Your task to perform on an android device: turn on the 12-hour format for clock Image 0: 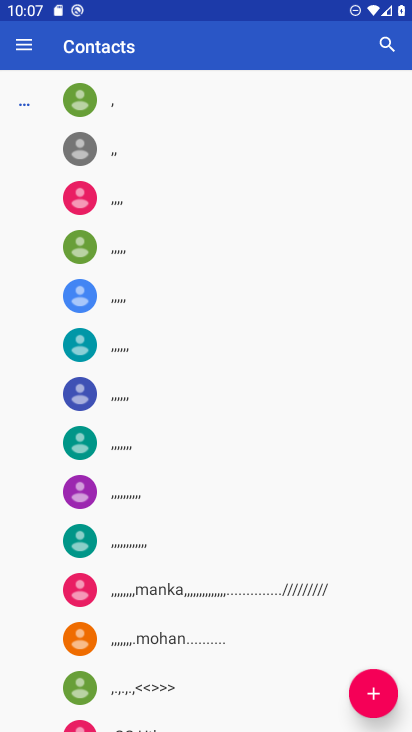
Step 0: press home button
Your task to perform on an android device: turn on the 12-hour format for clock Image 1: 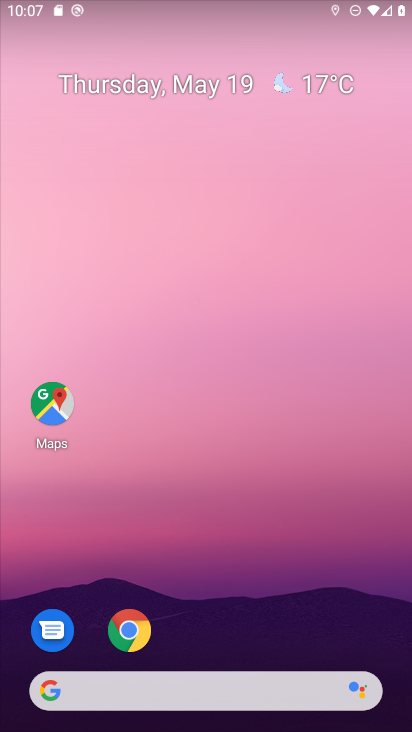
Step 1: drag from (302, 586) to (242, 212)
Your task to perform on an android device: turn on the 12-hour format for clock Image 2: 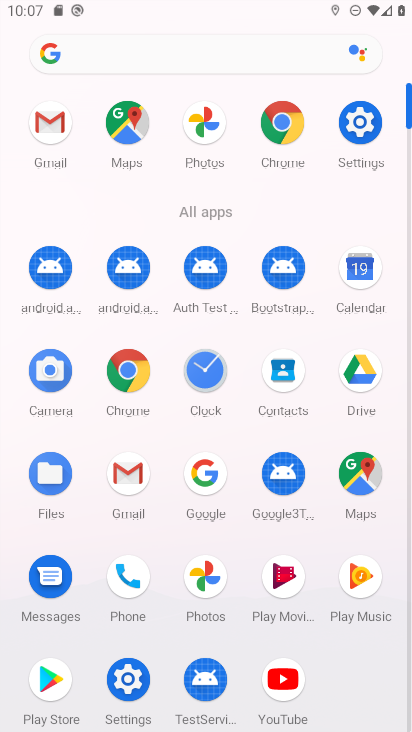
Step 2: click (199, 370)
Your task to perform on an android device: turn on the 12-hour format for clock Image 3: 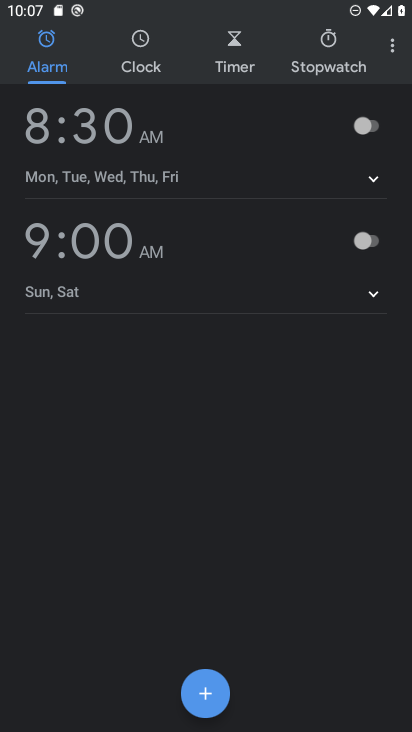
Step 3: click (394, 44)
Your task to perform on an android device: turn on the 12-hour format for clock Image 4: 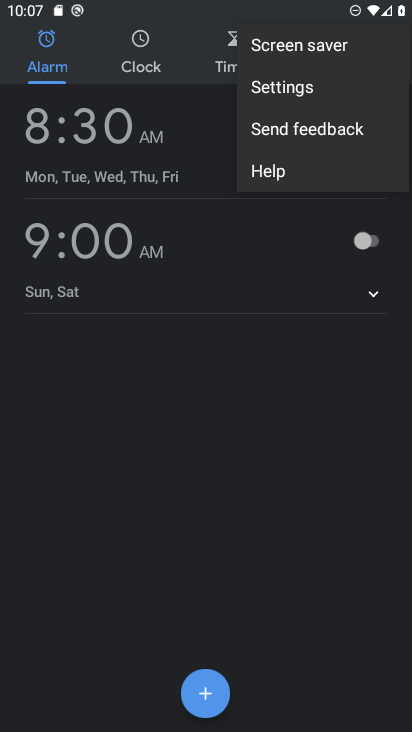
Step 4: click (286, 93)
Your task to perform on an android device: turn on the 12-hour format for clock Image 5: 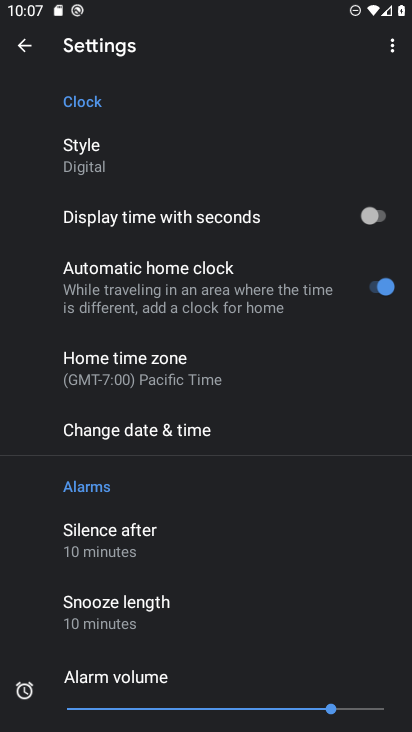
Step 5: click (151, 433)
Your task to perform on an android device: turn on the 12-hour format for clock Image 6: 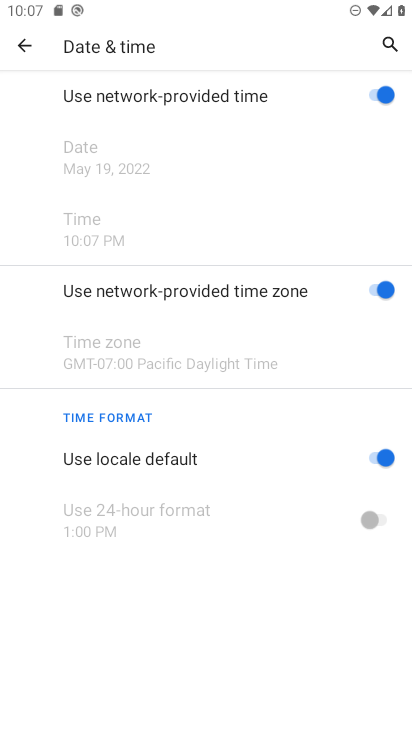
Step 6: task complete